Your task to perform on an android device: empty trash in the gmail app Image 0: 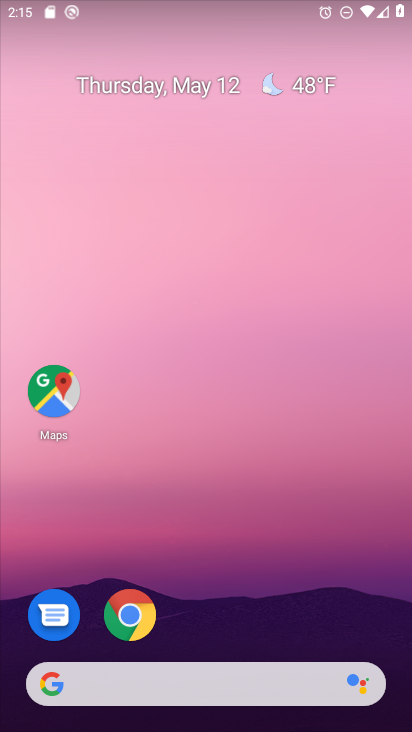
Step 0: drag from (142, 516) to (225, 51)
Your task to perform on an android device: empty trash in the gmail app Image 1: 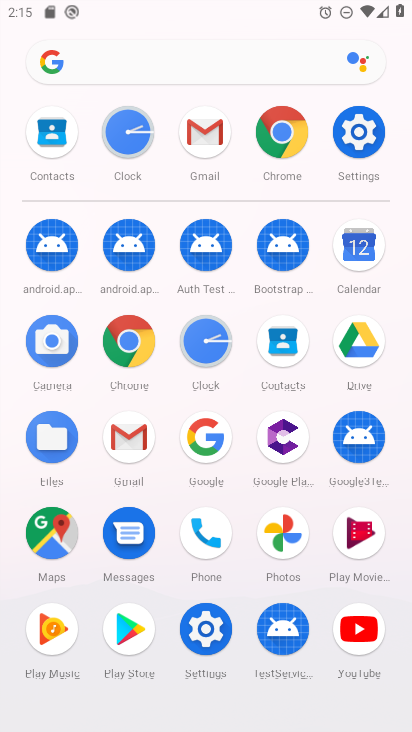
Step 1: click (121, 432)
Your task to perform on an android device: empty trash in the gmail app Image 2: 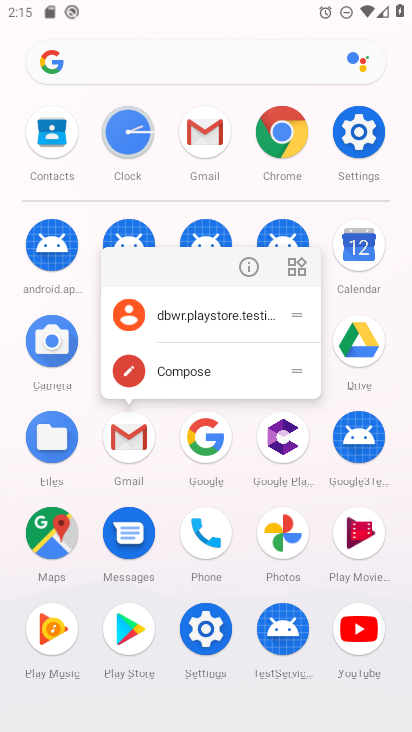
Step 2: click (108, 442)
Your task to perform on an android device: empty trash in the gmail app Image 3: 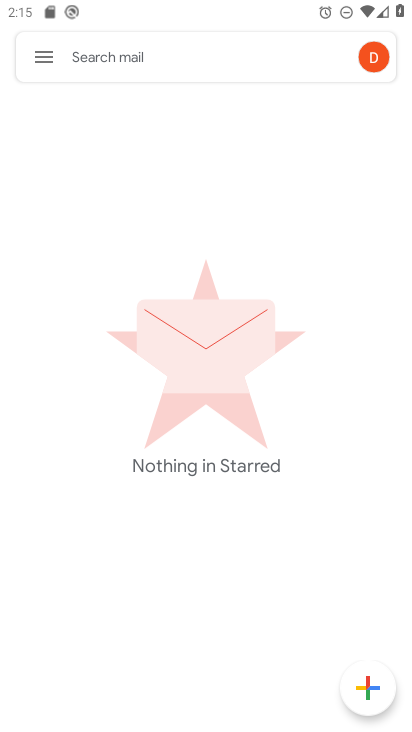
Step 3: click (47, 57)
Your task to perform on an android device: empty trash in the gmail app Image 4: 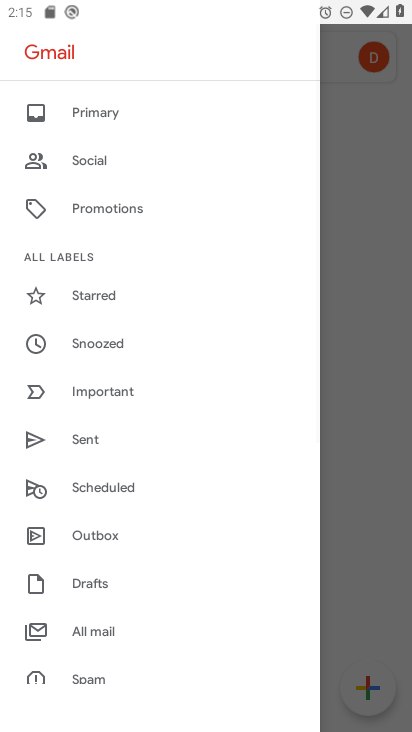
Step 4: drag from (154, 617) to (165, 296)
Your task to perform on an android device: empty trash in the gmail app Image 5: 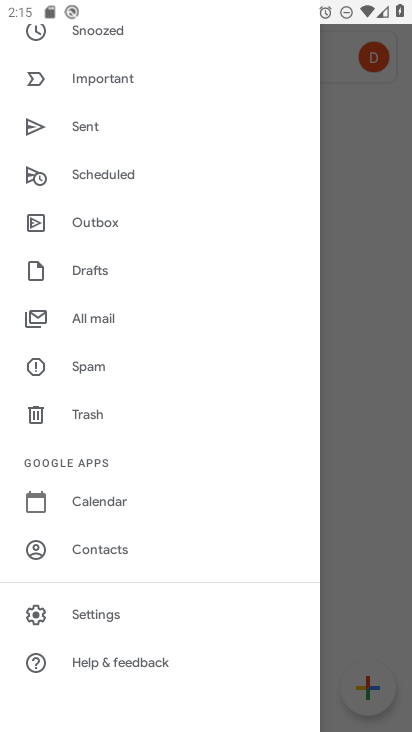
Step 5: click (106, 413)
Your task to perform on an android device: empty trash in the gmail app Image 6: 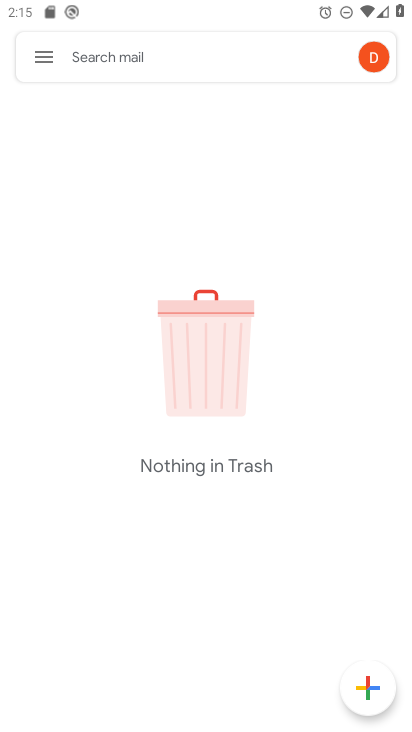
Step 6: task complete